Your task to perform on an android device: delete location history Image 0: 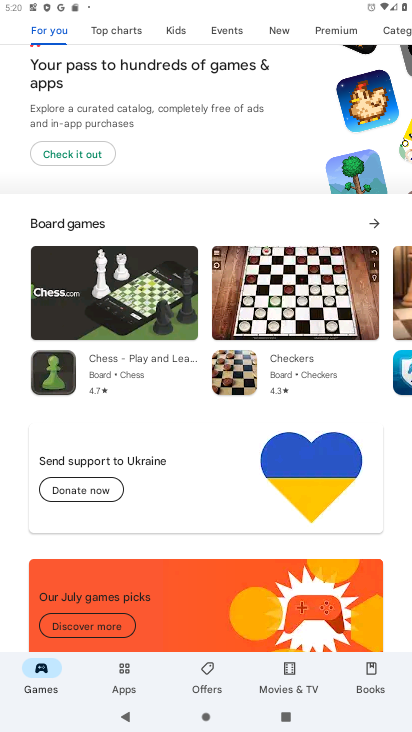
Step 0: press home button
Your task to perform on an android device: delete location history Image 1: 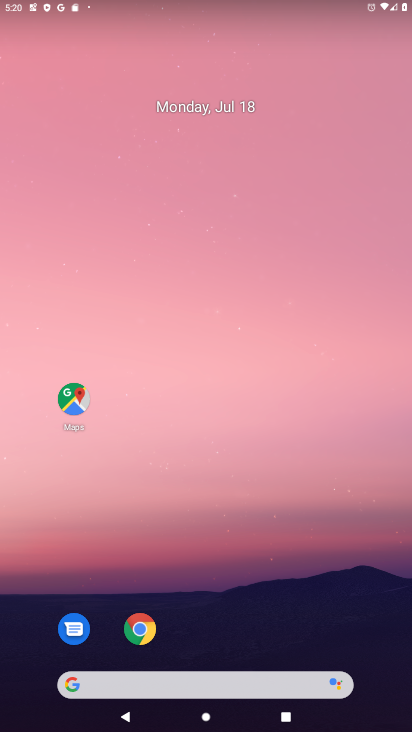
Step 1: drag from (265, 586) to (219, 11)
Your task to perform on an android device: delete location history Image 2: 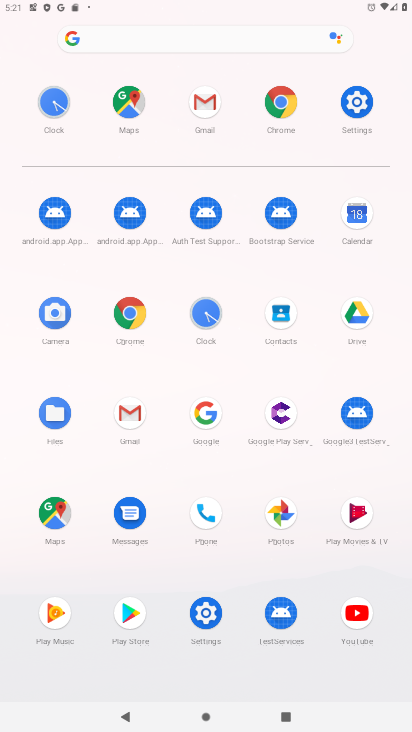
Step 2: click (51, 520)
Your task to perform on an android device: delete location history Image 3: 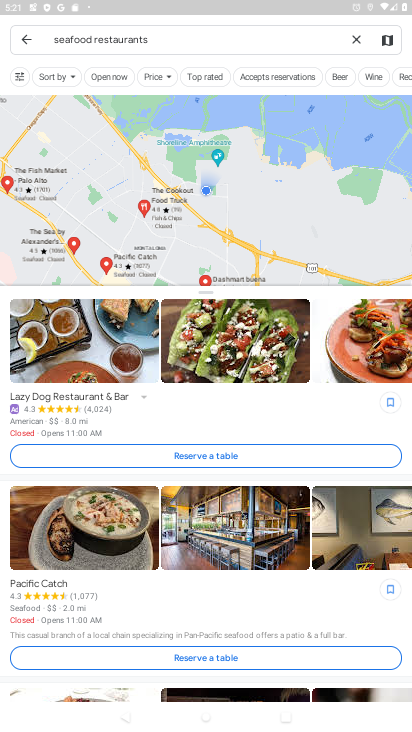
Step 3: click (24, 34)
Your task to perform on an android device: delete location history Image 4: 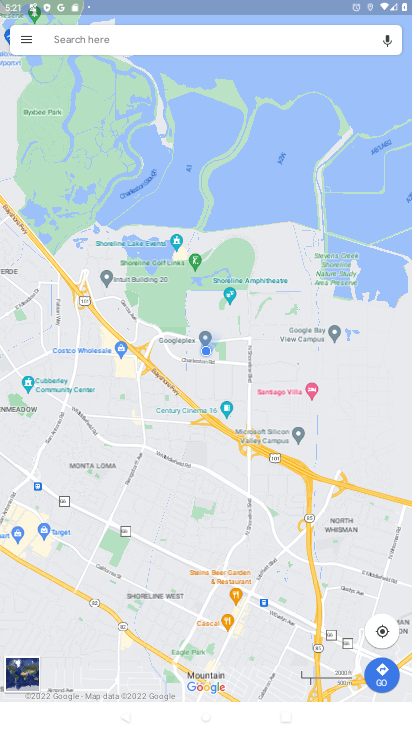
Step 4: click (25, 43)
Your task to perform on an android device: delete location history Image 5: 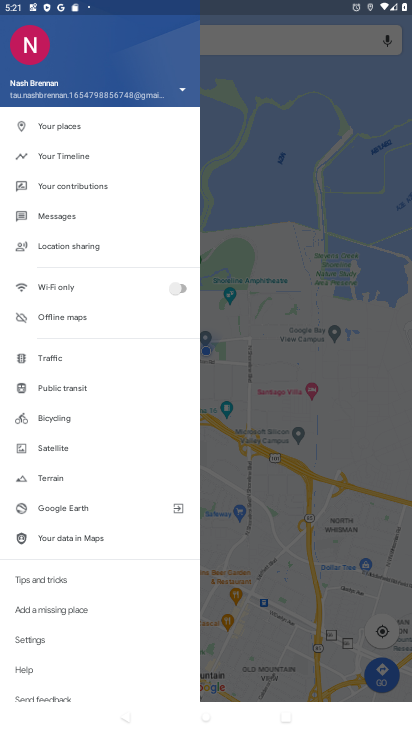
Step 5: click (28, 644)
Your task to perform on an android device: delete location history Image 6: 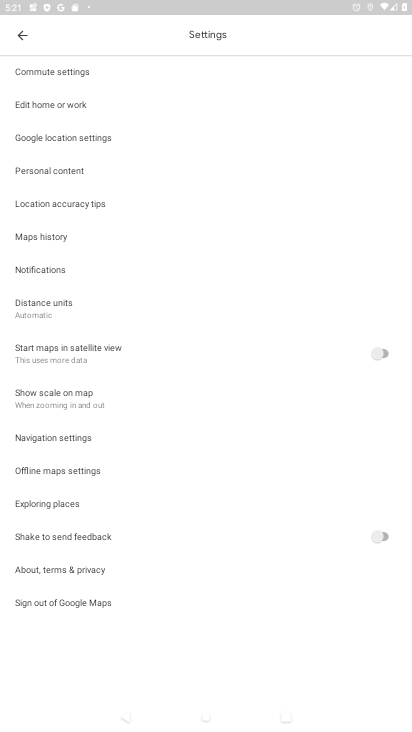
Step 6: click (65, 236)
Your task to perform on an android device: delete location history Image 7: 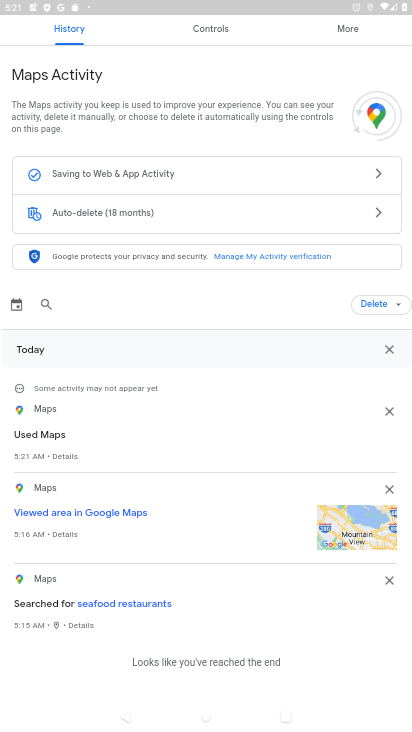
Step 7: click (403, 306)
Your task to perform on an android device: delete location history Image 8: 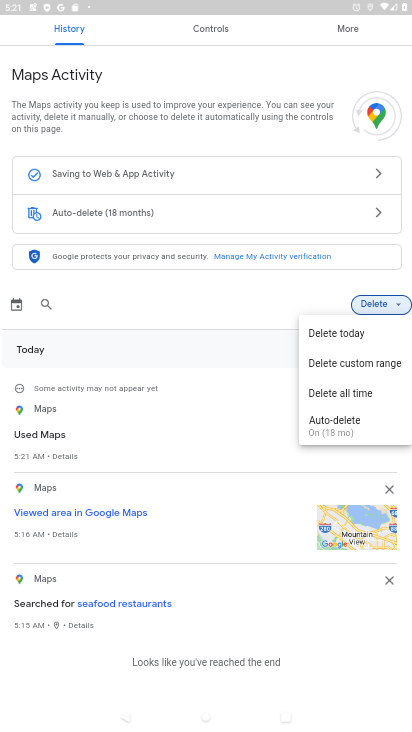
Step 8: click (337, 388)
Your task to perform on an android device: delete location history Image 9: 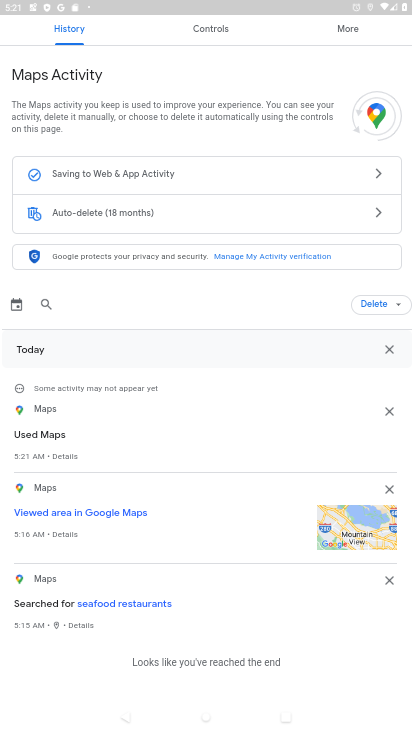
Step 9: click (391, 303)
Your task to perform on an android device: delete location history Image 10: 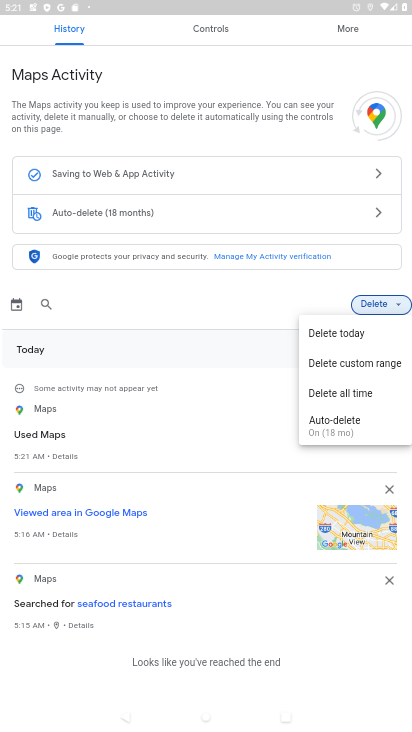
Step 10: click (318, 393)
Your task to perform on an android device: delete location history Image 11: 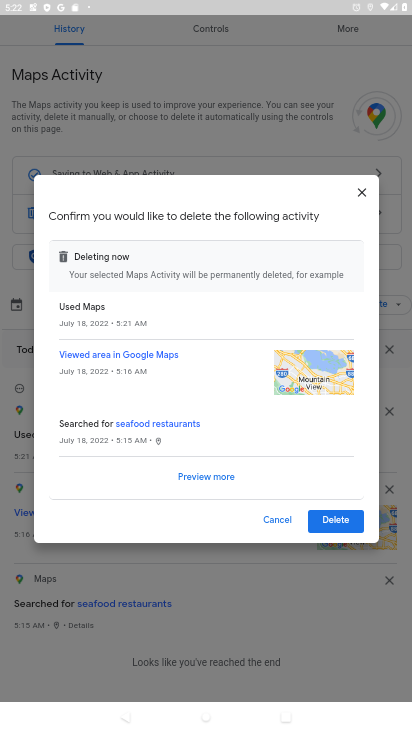
Step 11: click (326, 524)
Your task to perform on an android device: delete location history Image 12: 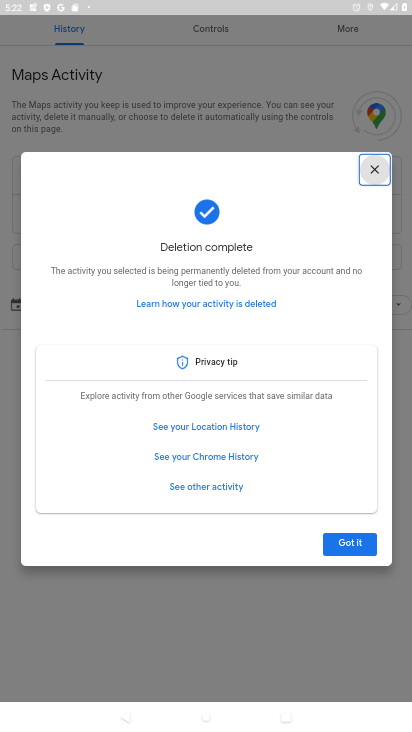
Step 12: click (361, 543)
Your task to perform on an android device: delete location history Image 13: 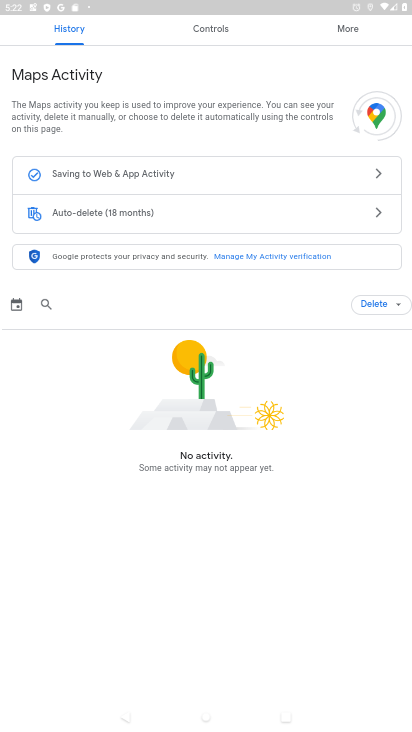
Step 13: task complete